Your task to perform on an android device: move a message to another label in the gmail app Image 0: 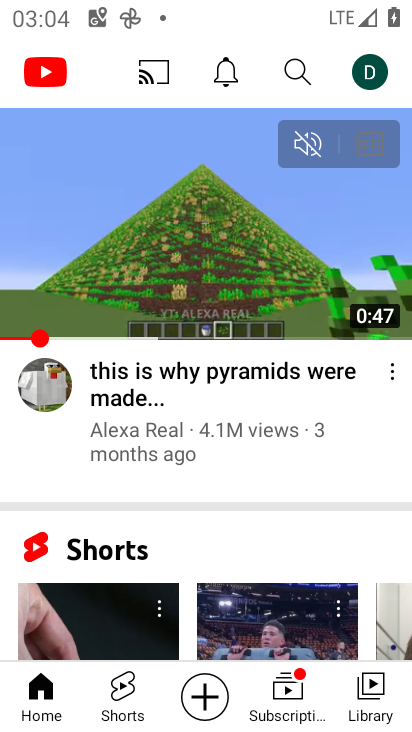
Step 0: press home button
Your task to perform on an android device: move a message to another label in the gmail app Image 1: 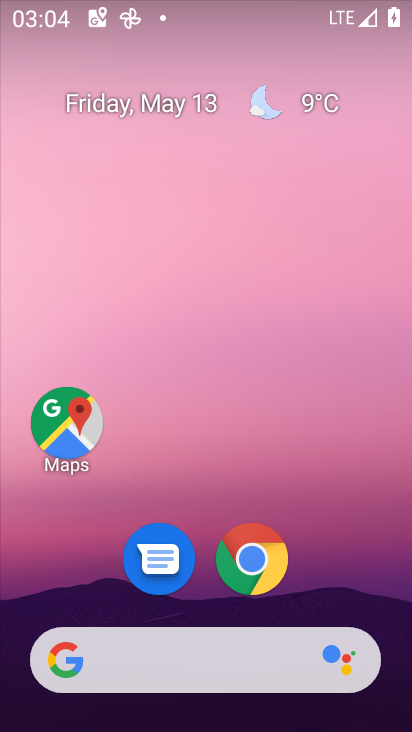
Step 1: drag from (397, 662) to (359, 314)
Your task to perform on an android device: move a message to another label in the gmail app Image 2: 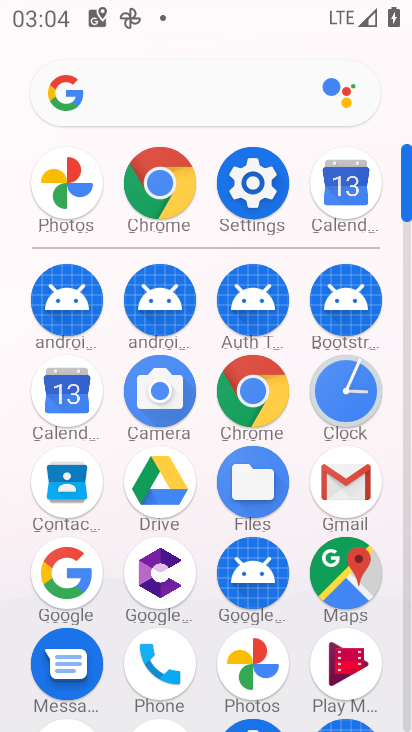
Step 2: click (348, 481)
Your task to perform on an android device: move a message to another label in the gmail app Image 3: 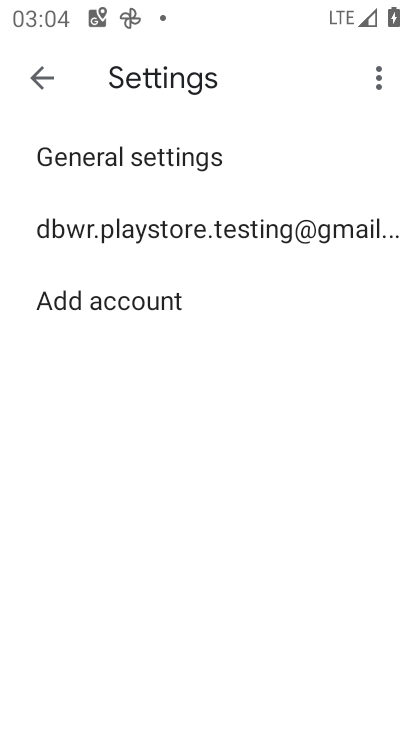
Step 3: click (123, 231)
Your task to perform on an android device: move a message to another label in the gmail app Image 4: 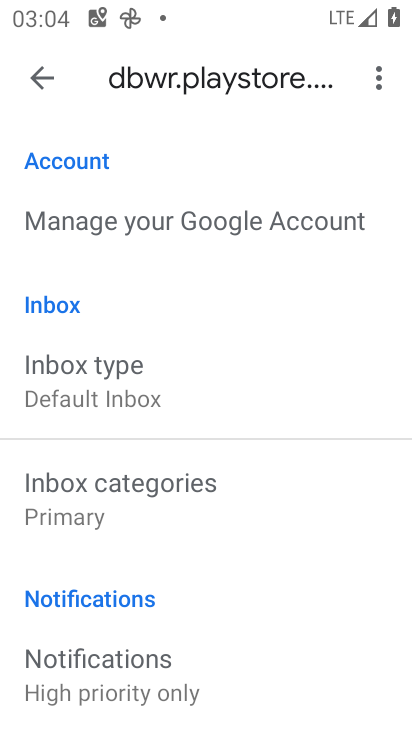
Step 4: drag from (265, 648) to (280, 424)
Your task to perform on an android device: move a message to another label in the gmail app Image 5: 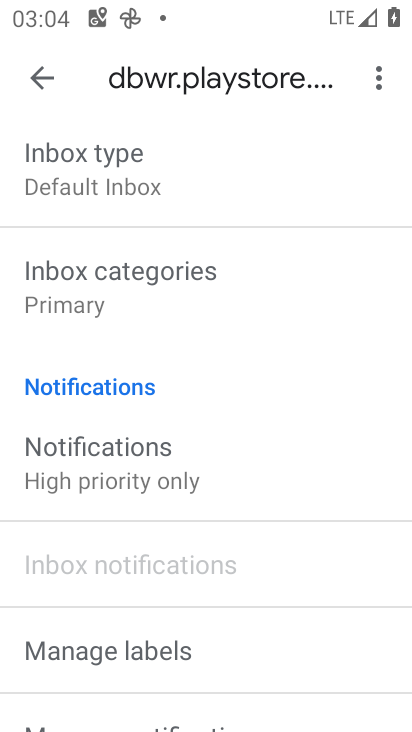
Step 5: drag from (321, 612) to (297, 378)
Your task to perform on an android device: move a message to another label in the gmail app Image 6: 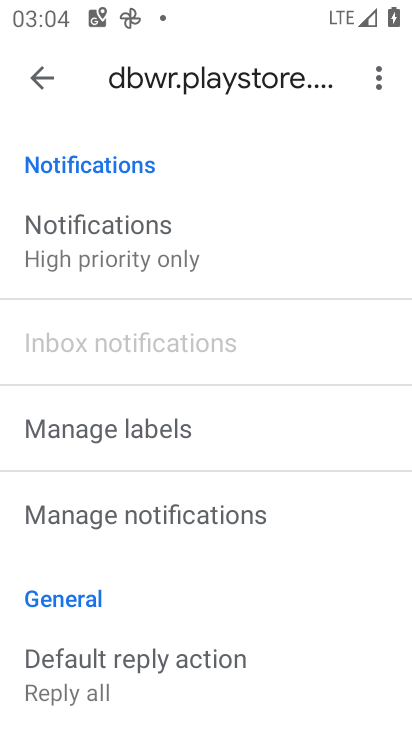
Step 6: click (43, 64)
Your task to perform on an android device: move a message to another label in the gmail app Image 7: 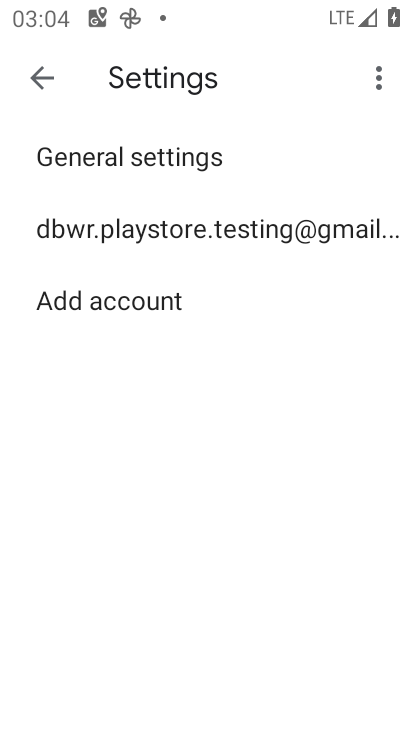
Step 7: click (40, 78)
Your task to perform on an android device: move a message to another label in the gmail app Image 8: 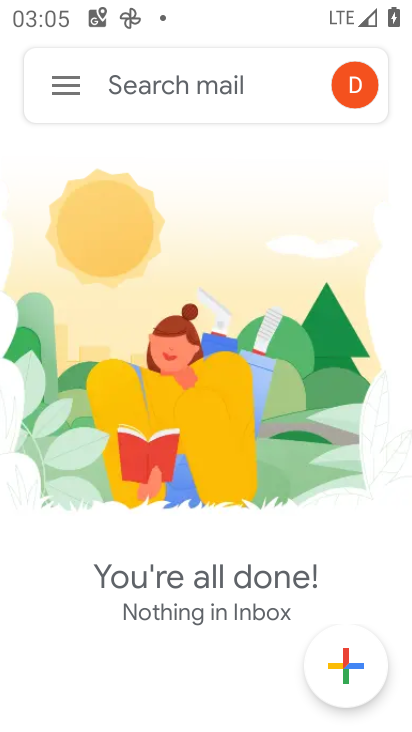
Step 8: click (34, 87)
Your task to perform on an android device: move a message to another label in the gmail app Image 9: 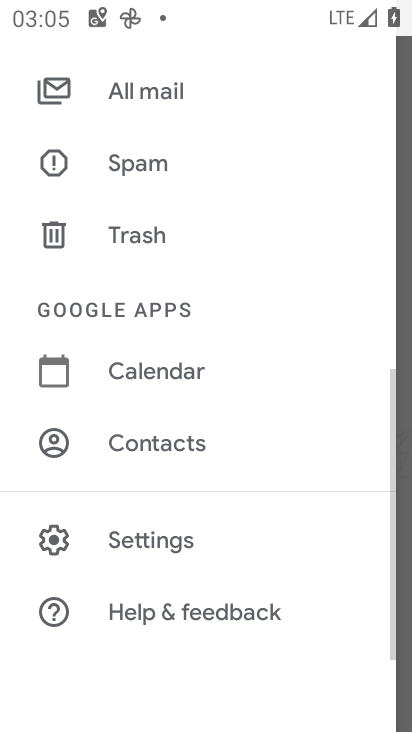
Step 9: drag from (260, 103) to (321, 471)
Your task to perform on an android device: move a message to another label in the gmail app Image 10: 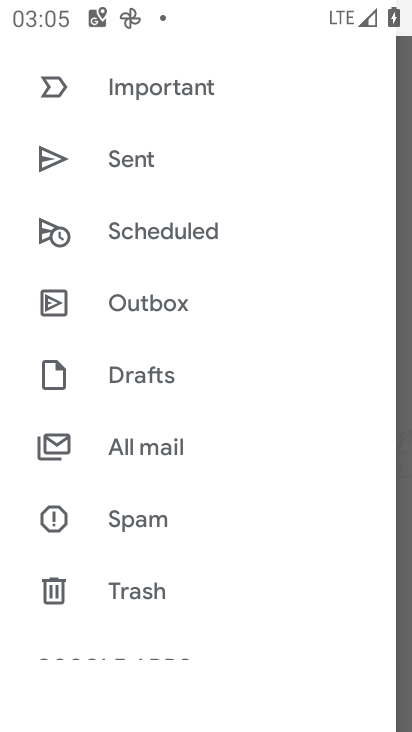
Step 10: drag from (316, 247) to (315, 386)
Your task to perform on an android device: move a message to another label in the gmail app Image 11: 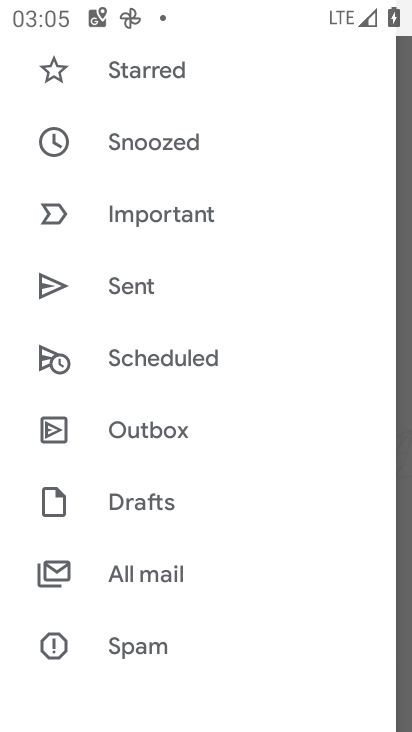
Step 11: drag from (271, 100) to (285, 256)
Your task to perform on an android device: move a message to another label in the gmail app Image 12: 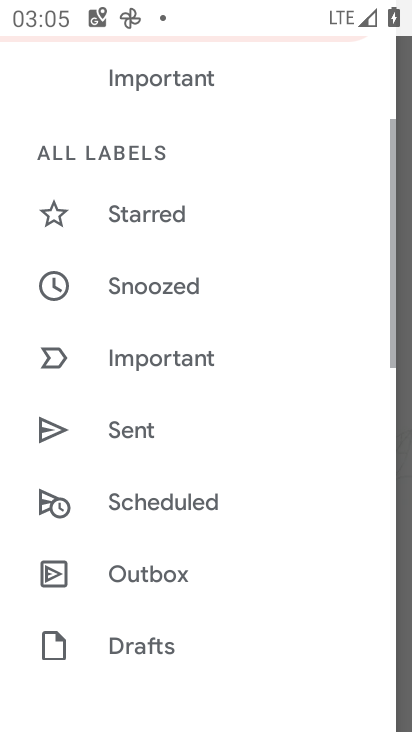
Step 12: drag from (296, 111) to (345, 418)
Your task to perform on an android device: move a message to another label in the gmail app Image 13: 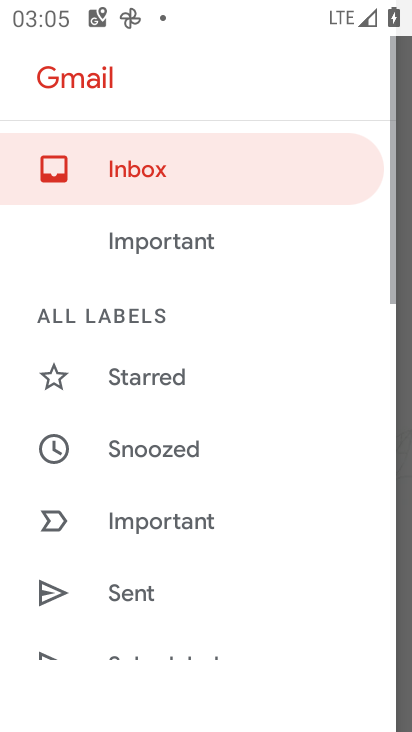
Step 13: click (122, 163)
Your task to perform on an android device: move a message to another label in the gmail app Image 14: 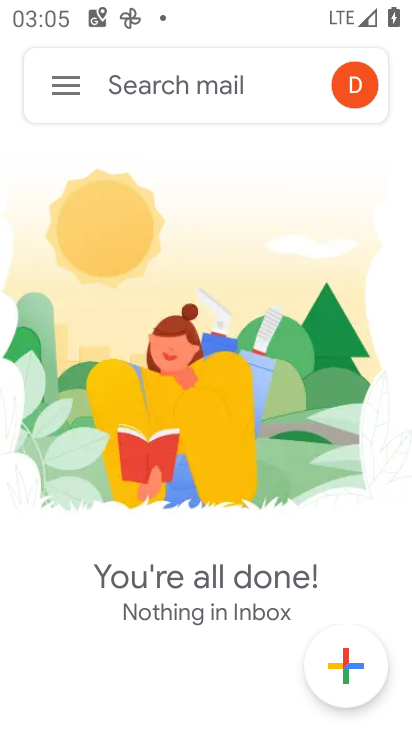
Step 14: task complete